Your task to perform on an android device: toggle javascript in the chrome app Image 0: 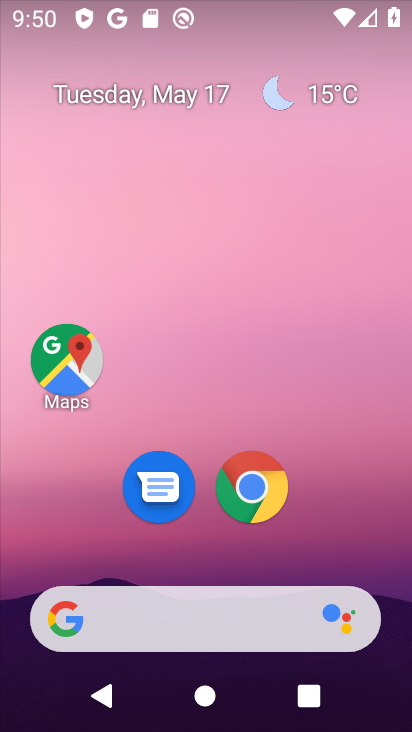
Step 0: click (250, 475)
Your task to perform on an android device: toggle javascript in the chrome app Image 1: 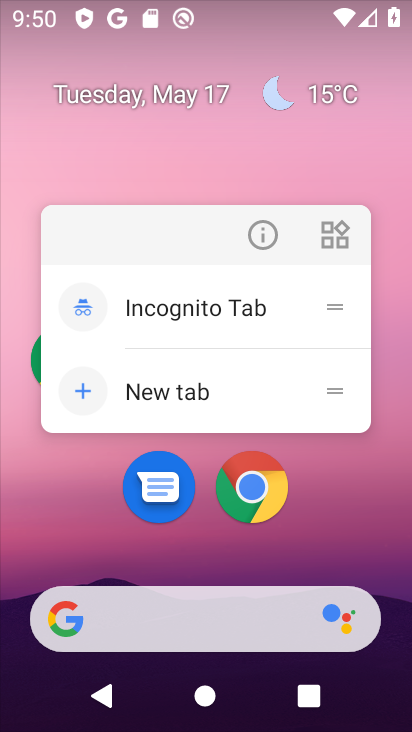
Step 1: click (243, 491)
Your task to perform on an android device: toggle javascript in the chrome app Image 2: 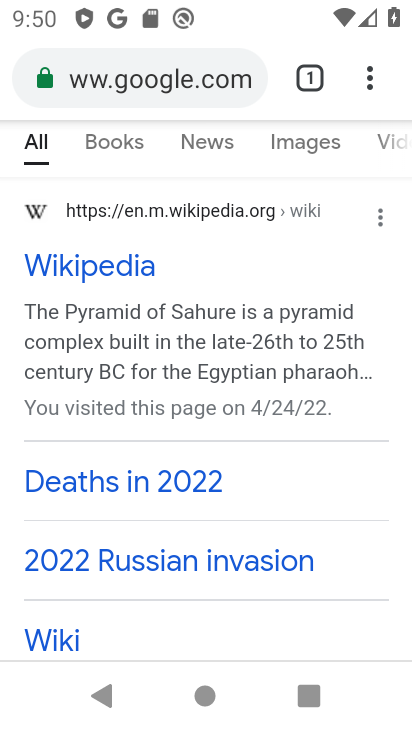
Step 2: click (367, 73)
Your task to perform on an android device: toggle javascript in the chrome app Image 3: 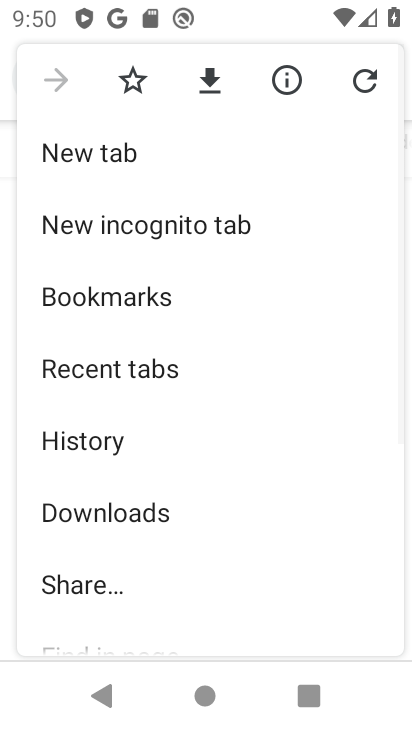
Step 3: drag from (240, 522) to (232, 422)
Your task to perform on an android device: toggle javascript in the chrome app Image 4: 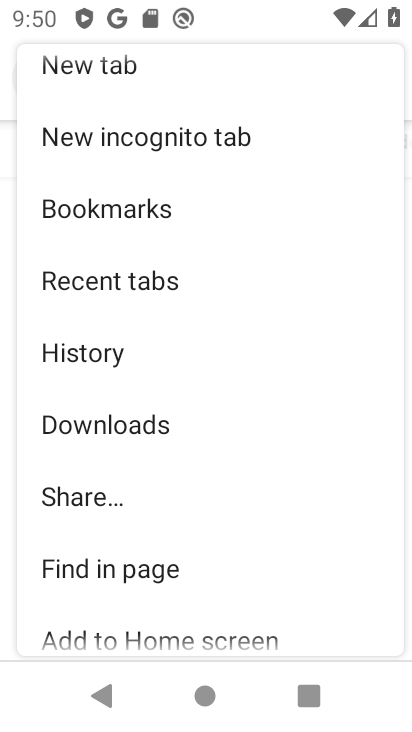
Step 4: click (274, 390)
Your task to perform on an android device: toggle javascript in the chrome app Image 5: 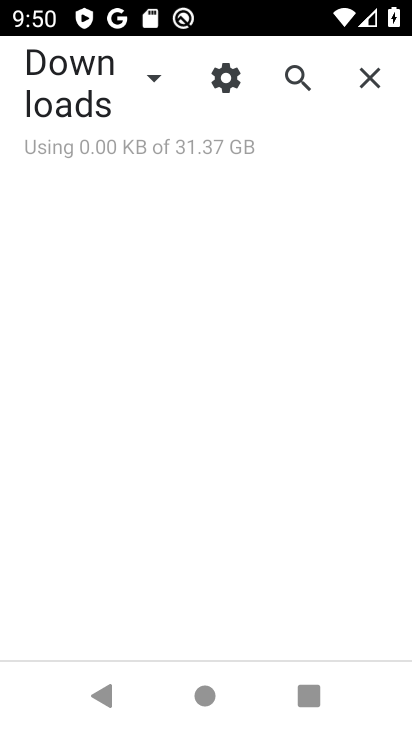
Step 5: press back button
Your task to perform on an android device: toggle javascript in the chrome app Image 6: 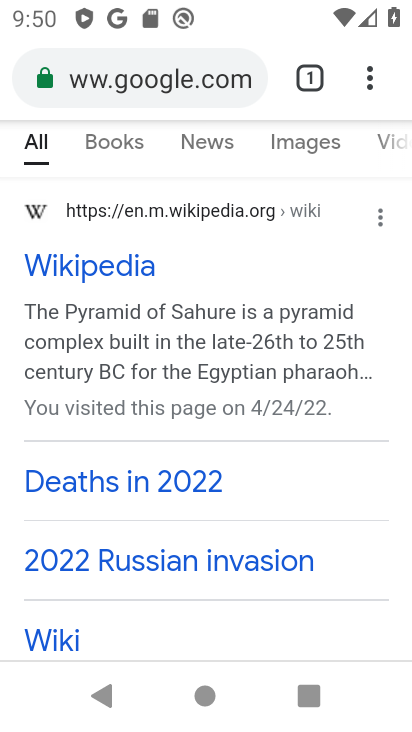
Step 6: click (367, 81)
Your task to perform on an android device: toggle javascript in the chrome app Image 7: 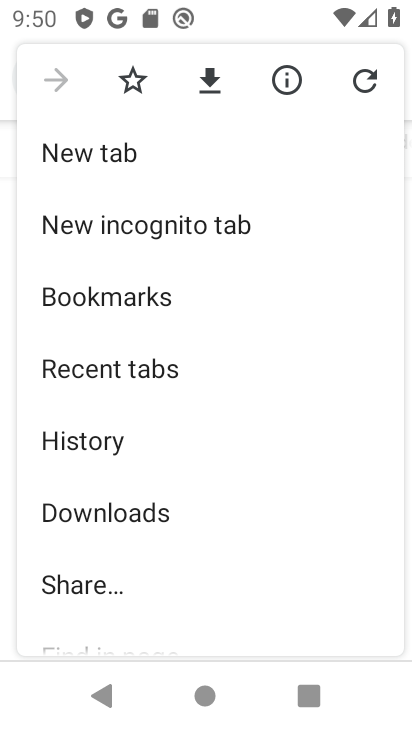
Step 7: drag from (275, 606) to (266, 408)
Your task to perform on an android device: toggle javascript in the chrome app Image 8: 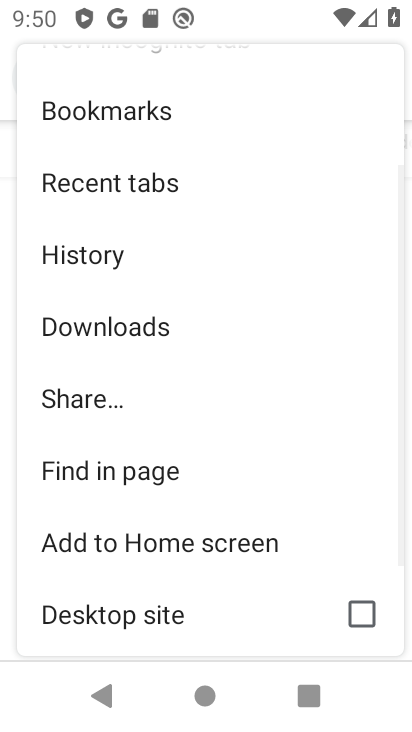
Step 8: drag from (238, 612) to (222, 399)
Your task to perform on an android device: toggle javascript in the chrome app Image 9: 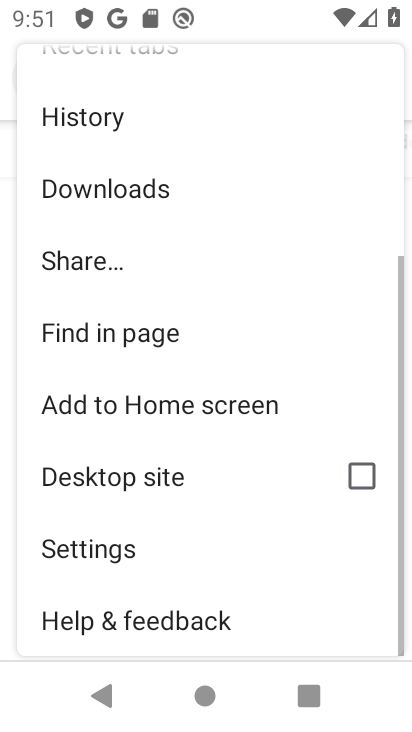
Step 9: drag from (274, 610) to (267, 331)
Your task to perform on an android device: toggle javascript in the chrome app Image 10: 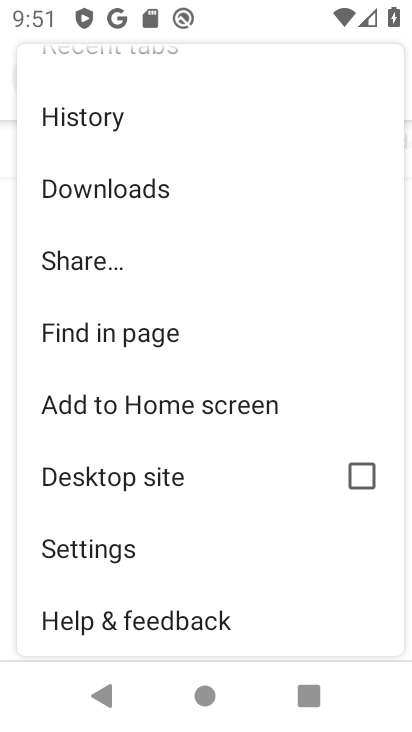
Step 10: click (93, 548)
Your task to perform on an android device: toggle javascript in the chrome app Image 11: 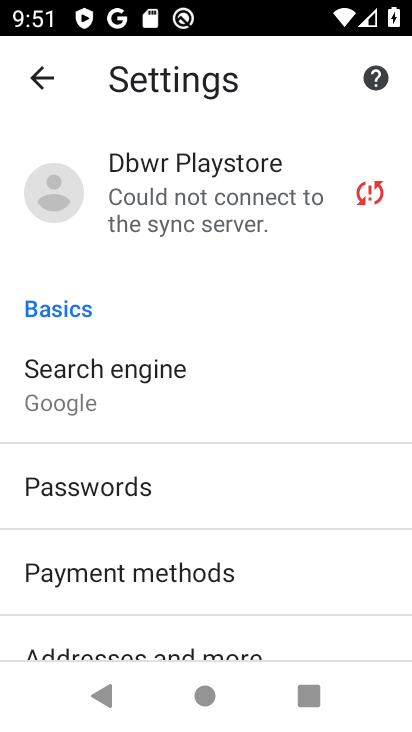
Step 11: drag from (334, 632) to (330, 184)
Your task to perform on an android device: toggle javascript in the chrome app Image 12: 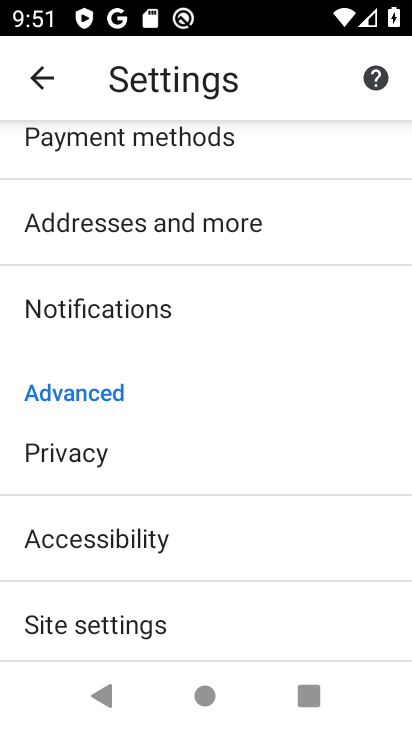
Step 12: drag from (295, 635) to (262, 415)
Your task to perform on an android device: toggle javascript in the chrome app Image 13: 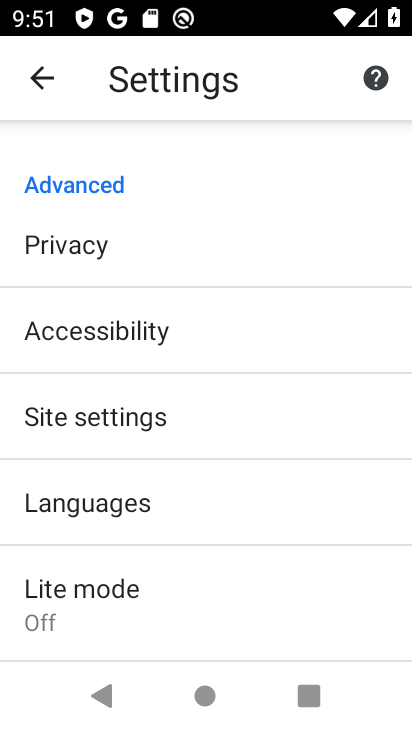
Step 13: click (70, 415)
Your task to perform on an android device: toggle javascript in the chrome app Image 14: 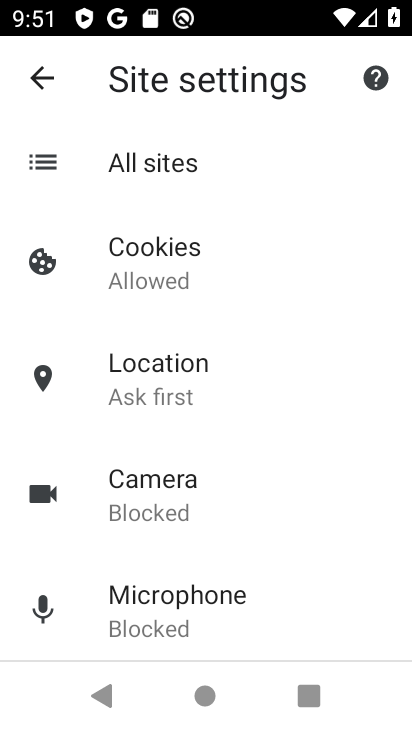
Step 14: drag from (320, 354) to (325, 283)
Your task to perform on an android device: toggle javascript in the chrome app Image 15: 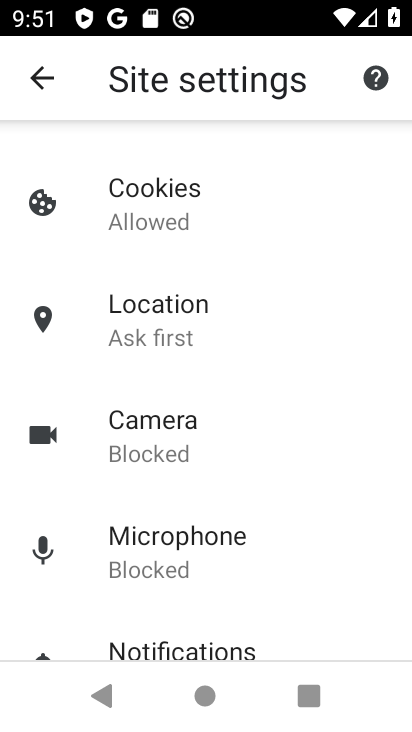
Step 15: drag from (339, 622) to (340, 407)
Your task to perform on an android device: toggle javascript in the chrome app Image 16: 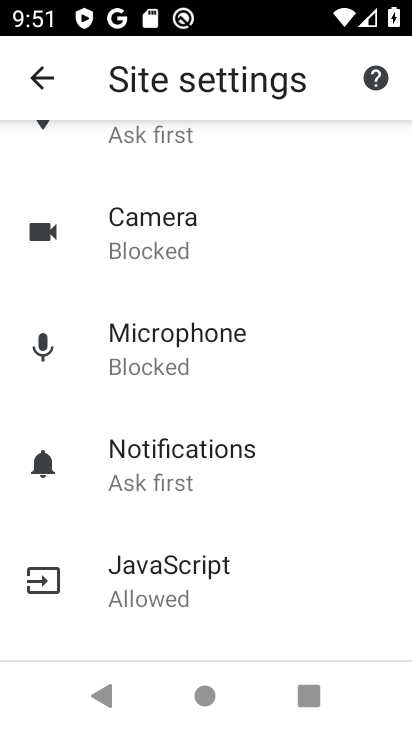
Step 16: click (140, 575)
Your task to perform on an android device: toggle javascript in the chrome app Image 17: 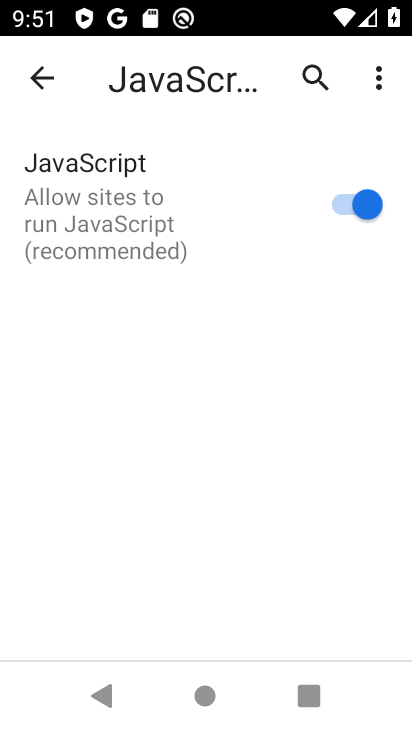
Step 17: click (335, 211)
Your task to perform on an android device: toggle javascript in the chrome app Image 18: 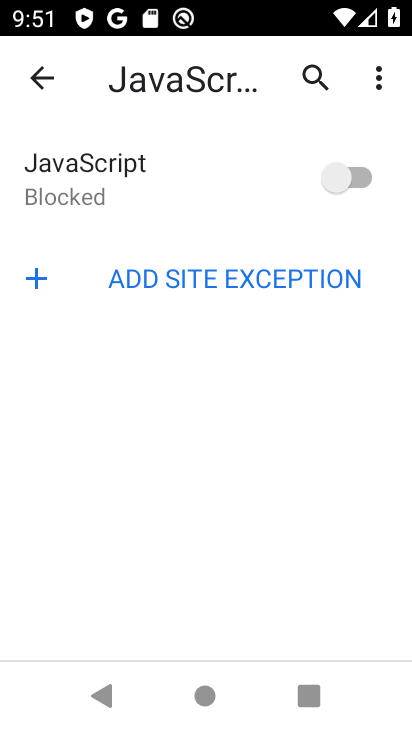
Step 18: task complete